Your task to perform on an android device: turn smart compose on in the gmail app Image 0: 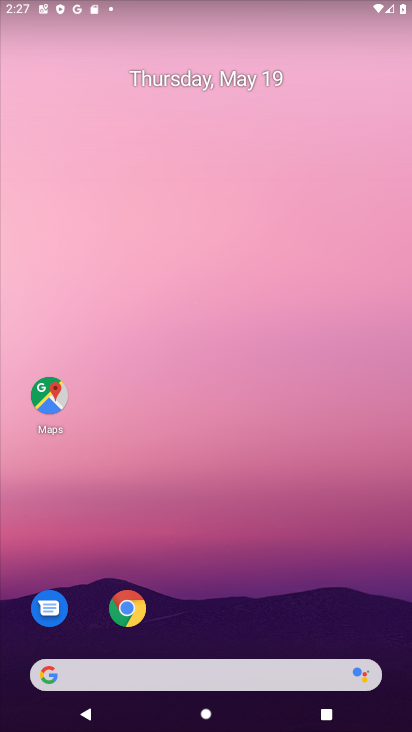
Step 0: drag from (248, 628) to (248, 270)
Your task to perform on an android device: turn smart compose on in the gmail app Image 1: 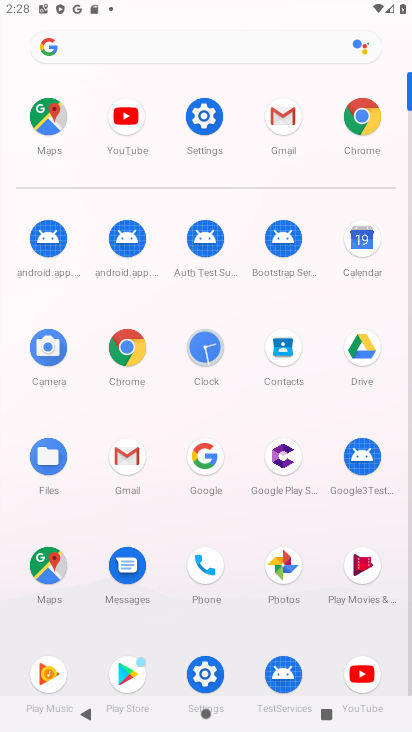
Step 1: click (289, 142)
Your task to perform on an android device: turn smart compose on in the gmail app Image 2: 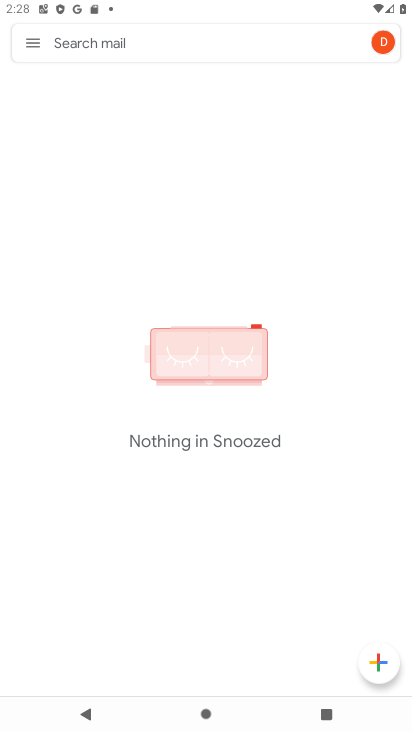
Step 2: click (39, 35)
Your task to perform on an android device: turn smart compose on in the gmail app Image 3: 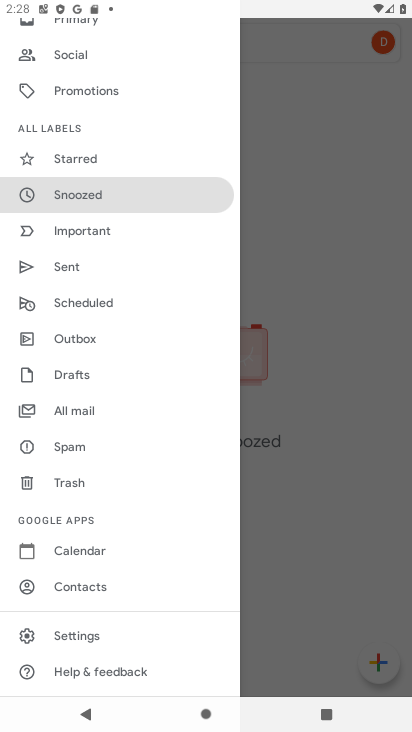
Step 3: click (116, 632)
Your task to perform on an android device: turn smart compose on in the gmail app Image 4: 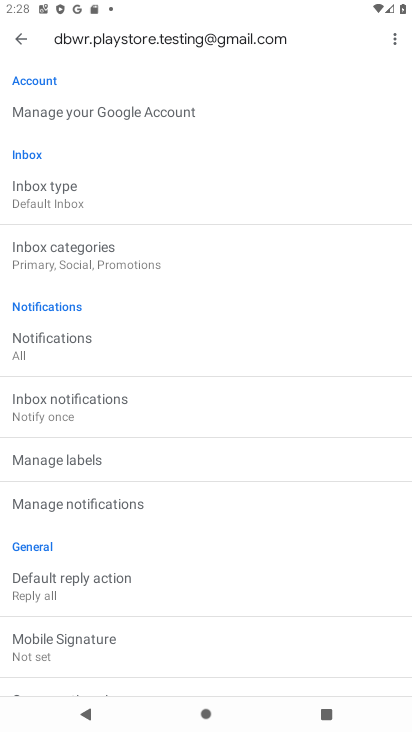
Step 4: task complete